Your task to perform on an android device: Turn on the flashlight Image 0: 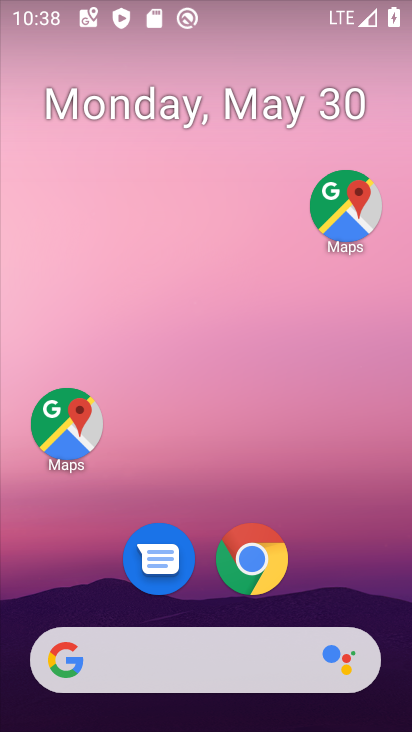
Step 0: drag from (326, 543) to (284, 162)
Your task to perform on an android device: Turn on the flashlight Image 1: 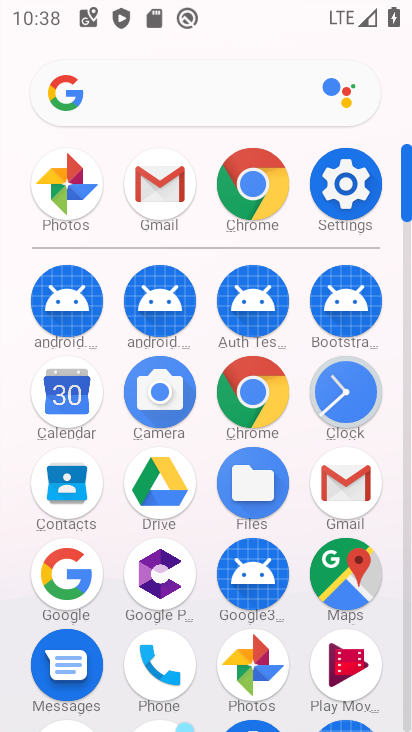
Step 1: click (348, 177)
Your task to perform on an android device: Turn on the flashlight Image 2: 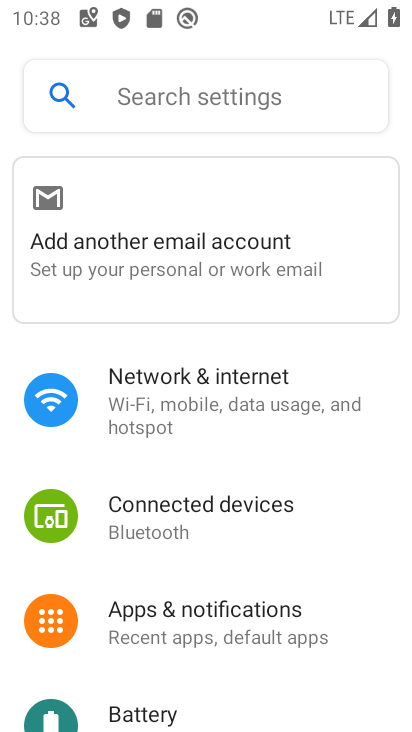
Step 2: drag from (284, 552) to (350, 251)
Your task to perform on an android device: Turn on the flashlight Image 3: 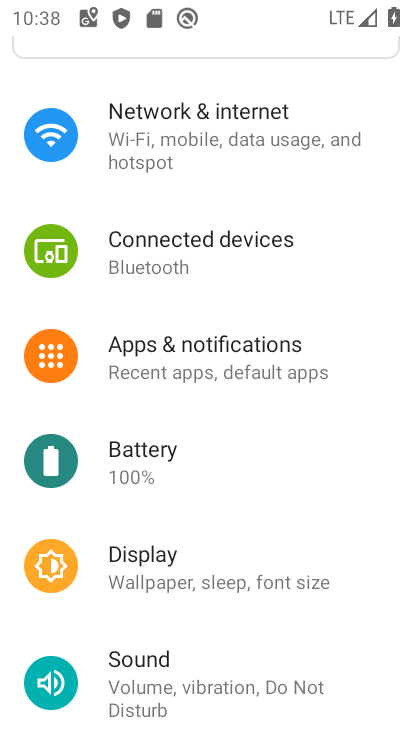
Step 3: click (162, 577)
Your task to perform on an android device: Turn on the flashlight Image 4: 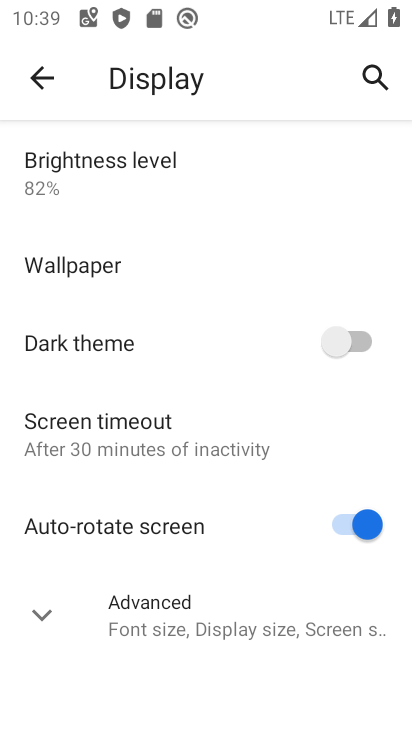
Step 4: task complete